Your task to perform on an android device: turn smart compose on in the gmail app Image 0: 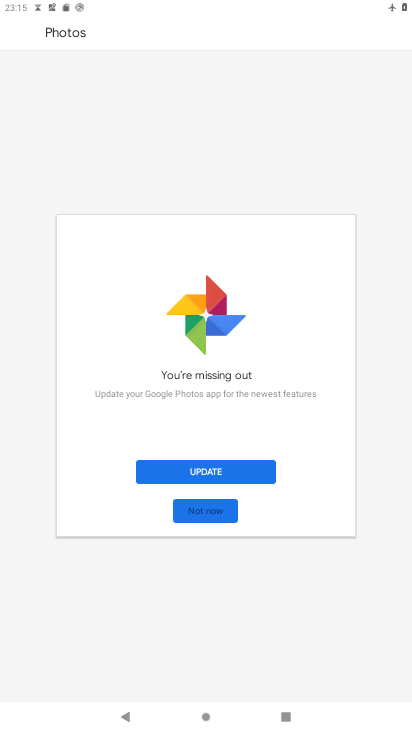
Step 0: press home button
Your task to perform on an android device: turn smart compose on in the gmail app Image 1: 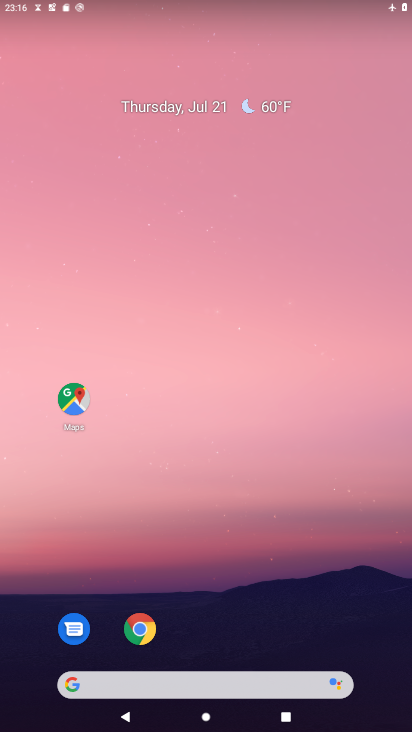
Step 1: drag from (191, 603) to (126, 32)
Your task to perform on an android device: turn smart compose on in the gmail app Image 2: 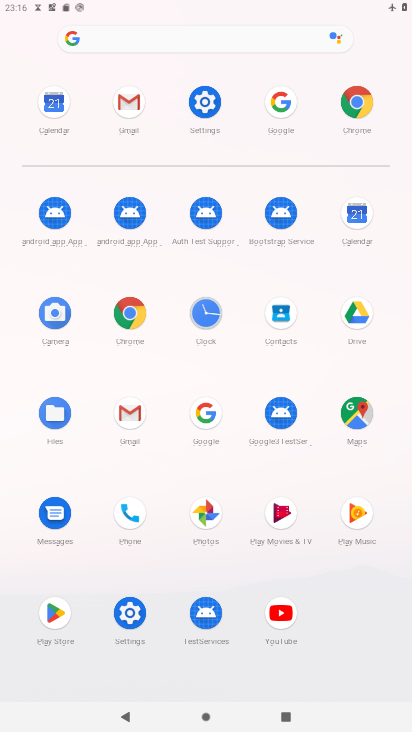
Step 2: click (138, 89)
Your task to perform on an android device: turn smart compose on in the gmail app Image 3: 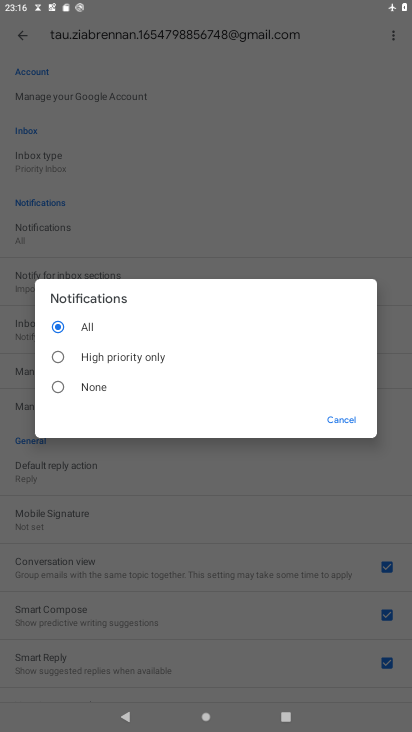
Step 3: click (204, 210)
Your task to perform on an android device: turn smart compose on in the gmail app Image 4: 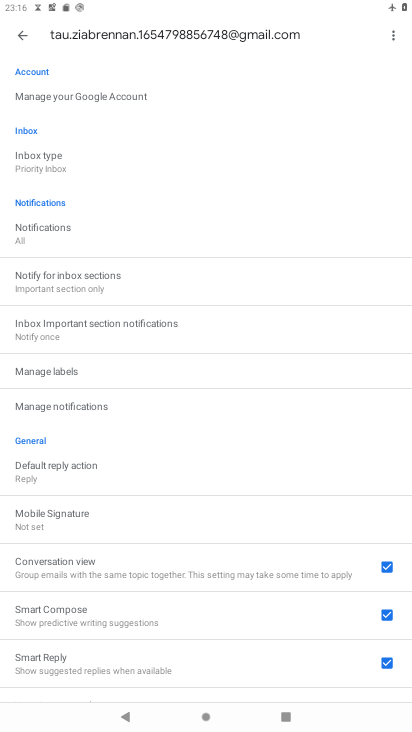
Step 4: task complete